Your task to perform on an android device: Go to sound settings Image 0: 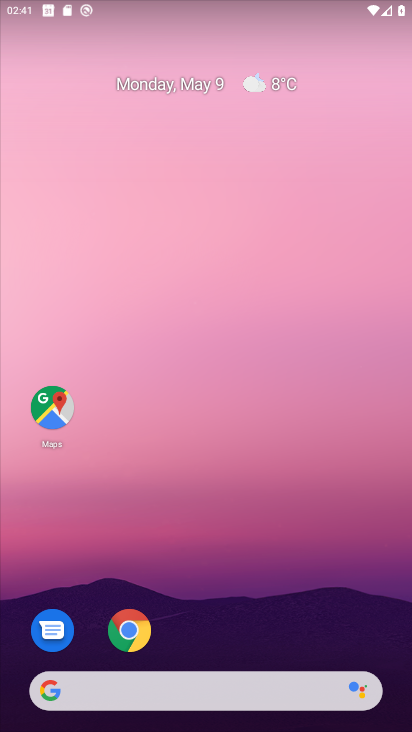
Step 0: drag from (218, 659) to (304, 46)
Your task to perform on an android device: Go to sound settings Image 1: 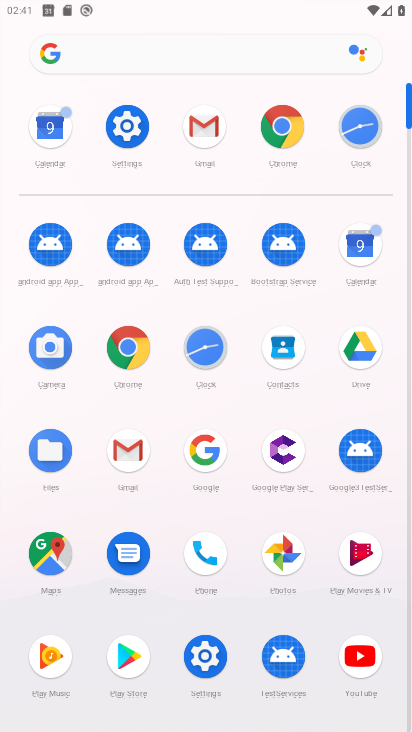
Step 1: click (208, 643)
Your task to perform on an android device: Go to sound settings Image 2: 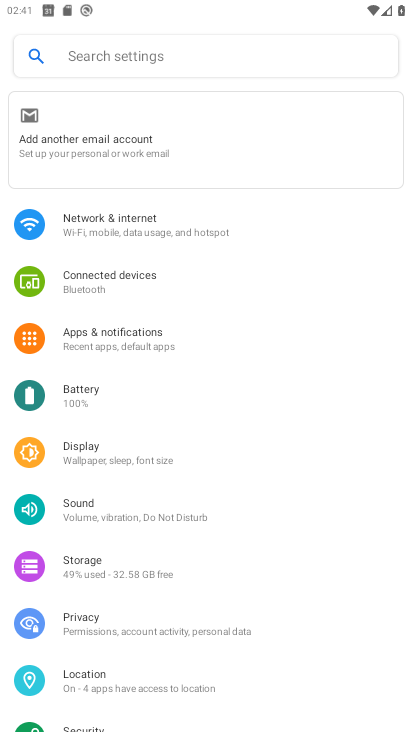
Step 2: click (96, 507)
Your task to perform on an android device: Go to sound settings Image 3: 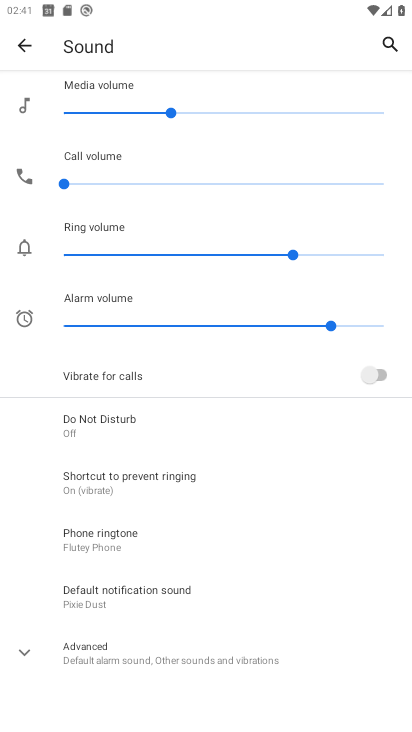
Step 3: task complete